Your task to perform on an android device: change the clock display to digital Image 0: 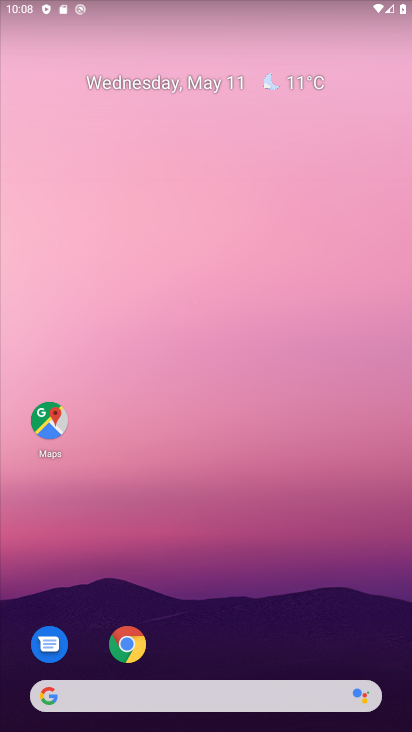
Step 0: drag from (279, 0) to (256, 42)
Your task to perform on an android device: change the clock display to digital Image 1: 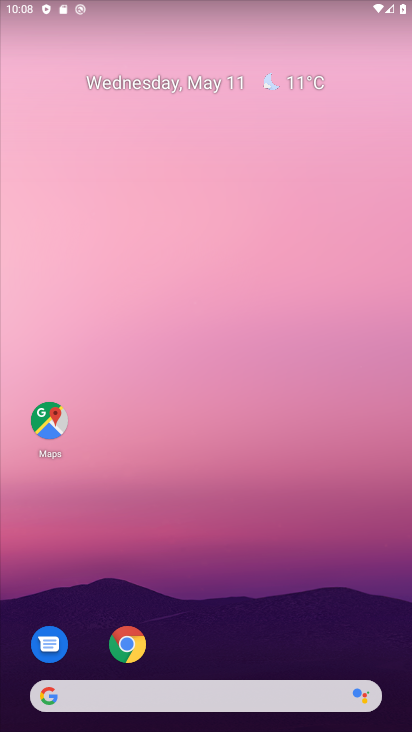
Step 1: drag from (345, 611) to (316, 9)
Your task to perform on an android device: change the clock display to digital Image 2: 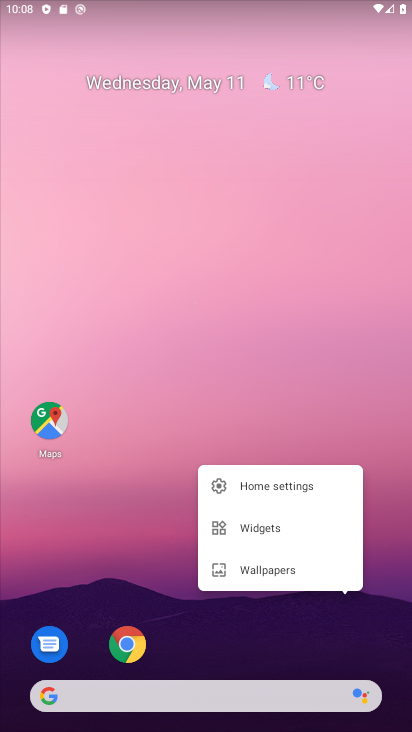
Step 2: drag from (396, 567) to (377, 0)
Your task to perform on an android device: change the clock display to digital Image 3: 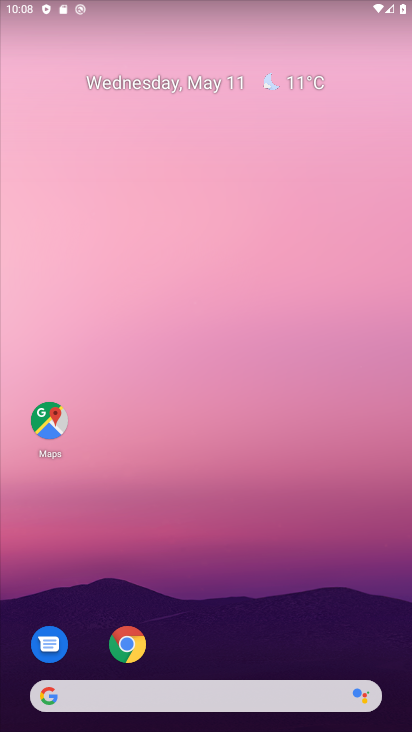
Step 3: drag from (295, 630) to (298, 0)
Your task to perform on an android device: change the clock display to digital Image 4: 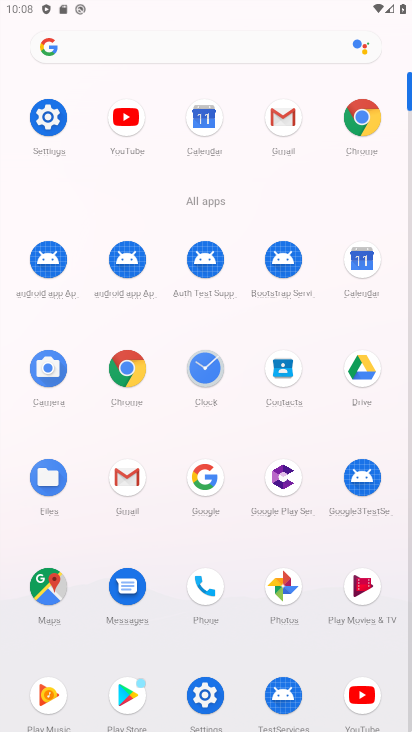
Step 4: click (204, 380)
Your task to perform on an android device: change the clock display to digital Image 5: 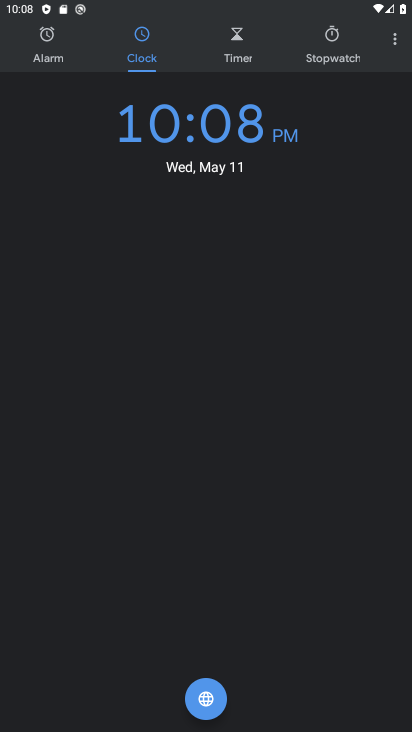
Step 5: click (395, 40)
Your task to perform on an android device: change the clock display to digital Image 6: 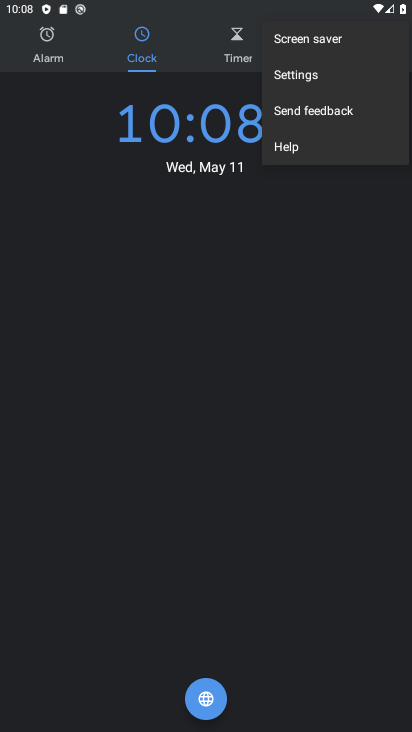
Step 6: click (319, 91)
Your task to perform on an android device: change the clock display to digital Image 7: 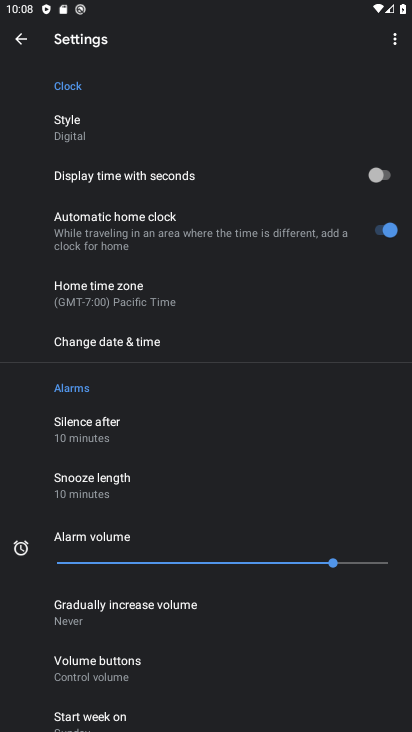
Step 7: task complete